Your task to perform on an android device: turn off airplane mode Image 0: 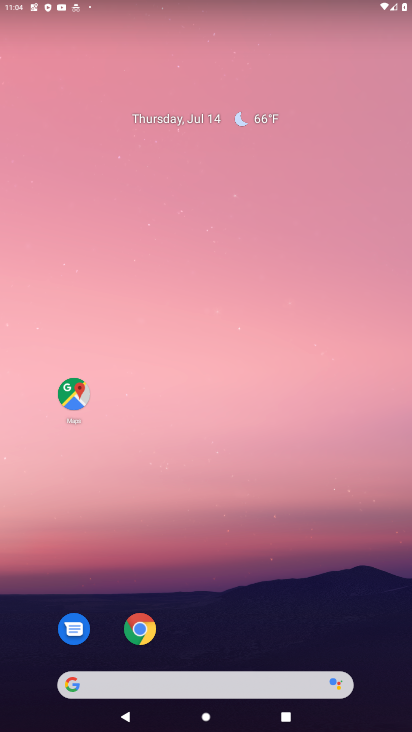
Step 0: drag from (350, 2) to (378, 392)
Your task to perform on an android device: turn off airplane mode Image 1: 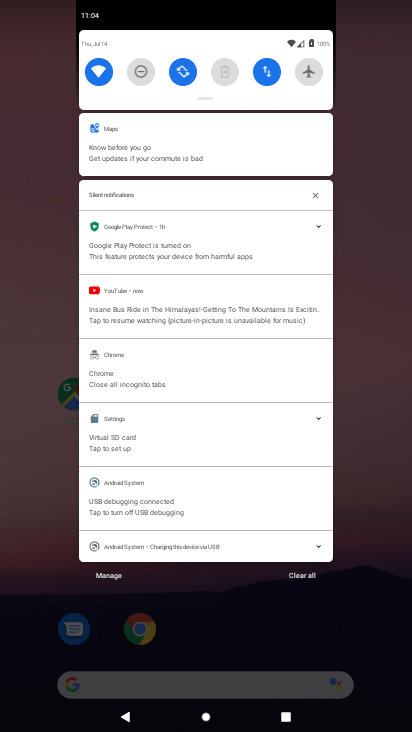
Step 1: task complete